Your task to perform on an android device: toggle pop-ups in chrome Image 0: 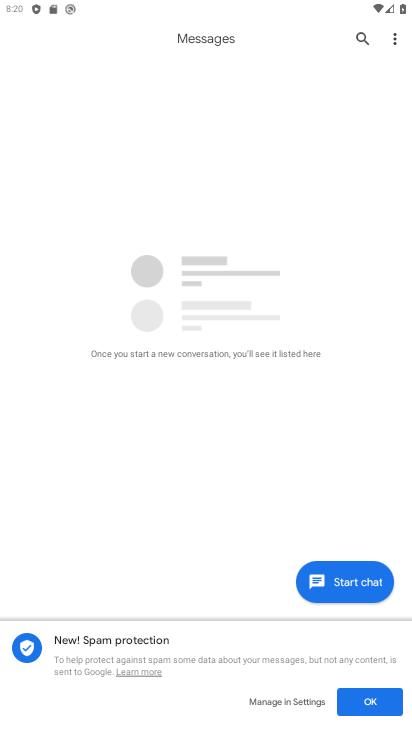
Step 0: press home button
Your task to perform on an android device: toggle pop-ups in chrome Image 1: 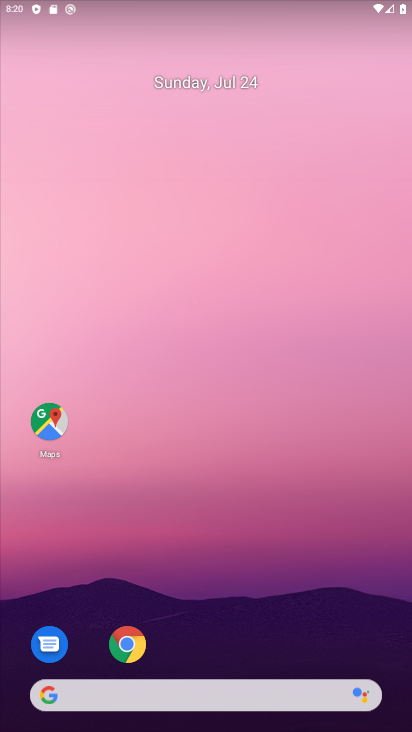
Step 1: click (127, 630)
Your task to perform on an android device: toggle pop-ups in chrome Image 2: 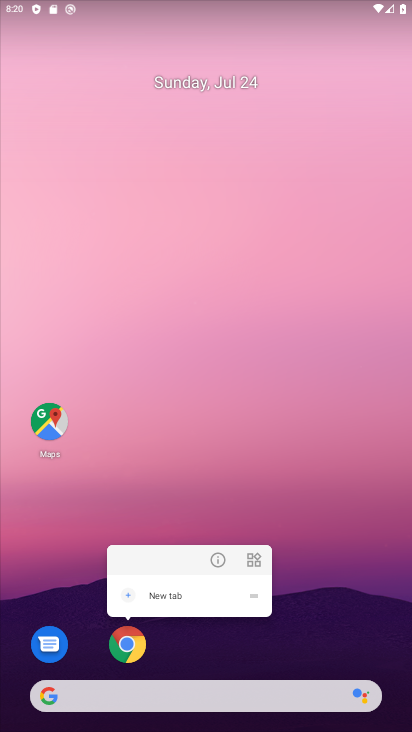
Step 2: click (121, 645)
Your task to perform on an android device: toggle pop-ups in chrome Image 3: 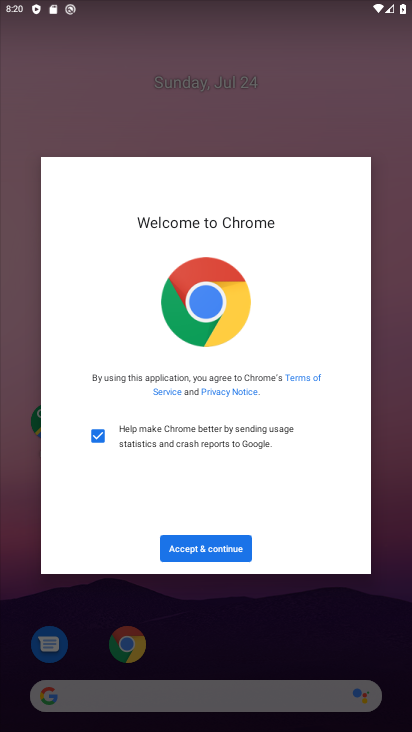
Step 3: click (201, 553)
Your task to perform on an android device: toggle pop-ups in chrome Image 4: 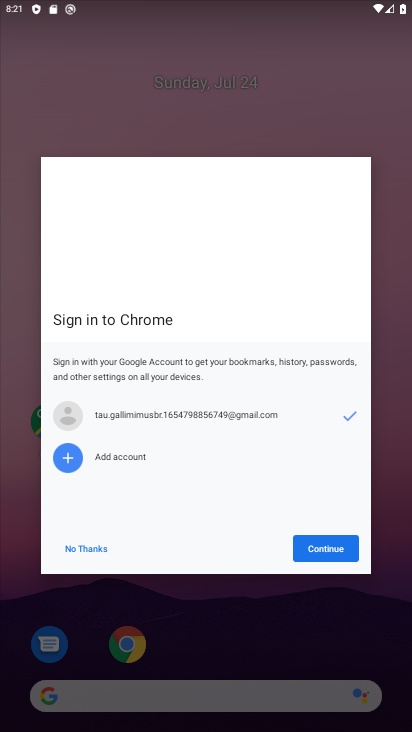
Step 4: click (340, 539)
Your task to perform on an android device: toggle pop-ups in chrome Image 5: 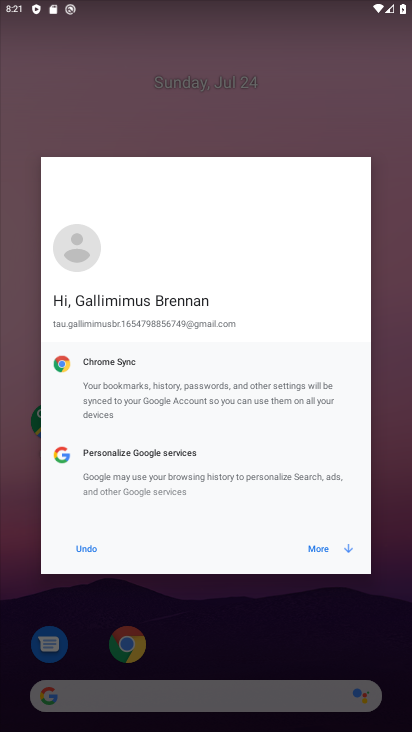
Step 5: click (341, 547)
Your task to perform on an android device: toggle pop-ups in chrome Image 6: 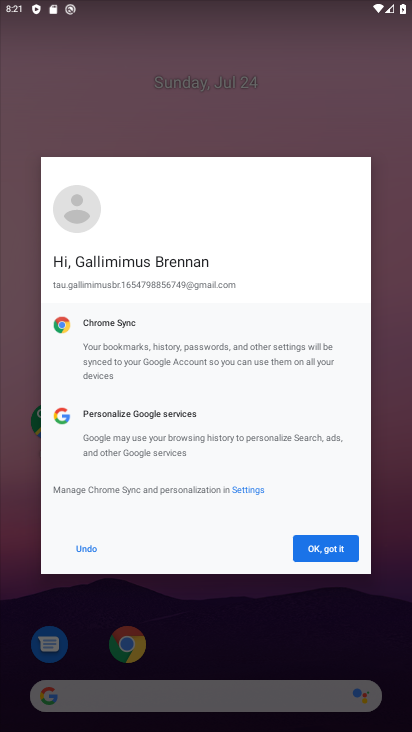
Step 6: click (336, 542)
Your task to perform on an android device: toggle pop-ups in chrome Image 7: 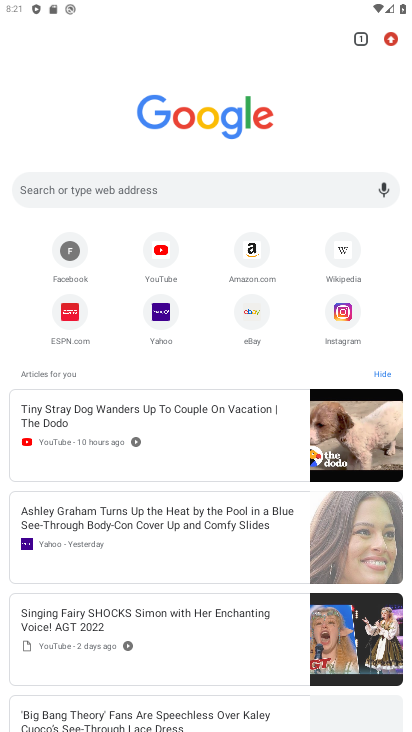
Step 7: drag from (386, 31) to (275, 372)
Your task to perform on an android device: toggle pop-ups in chrome Image 8: 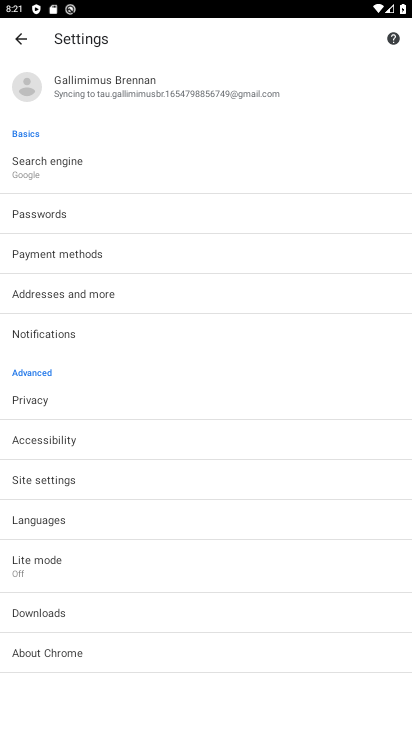
Step 8: click (56, 481)
Your task to perform on an android device: toggle pop-ups in chrome Image 9: 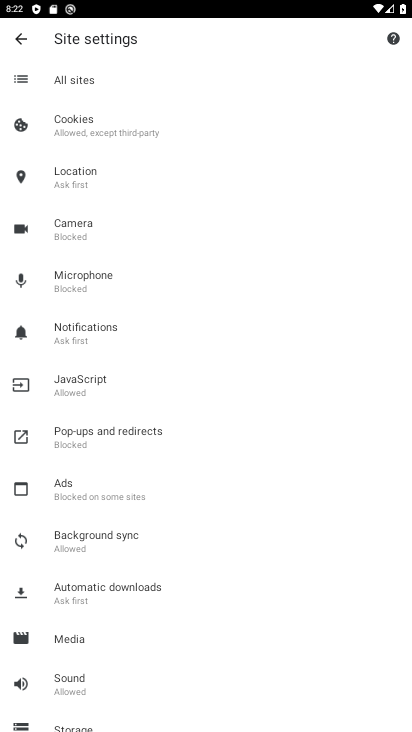
Step 9: click (103, 426)
Your task to perform on an android device: toggle pop-ups in chrome Image 10: 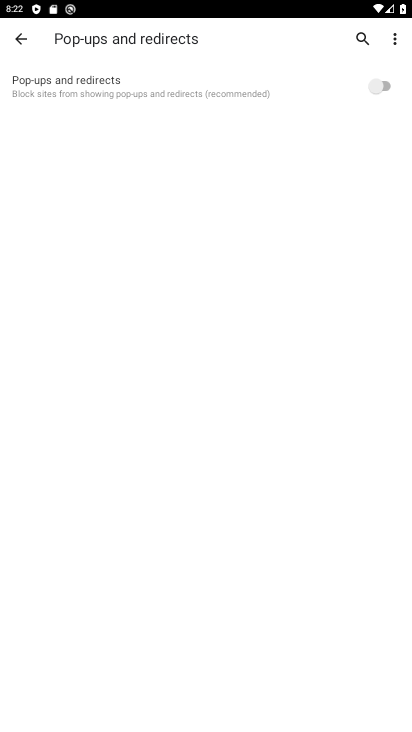
Step 10: click (264, 71)
Your task to perform on an android device: toggle pop-ups in chrome Image 11: 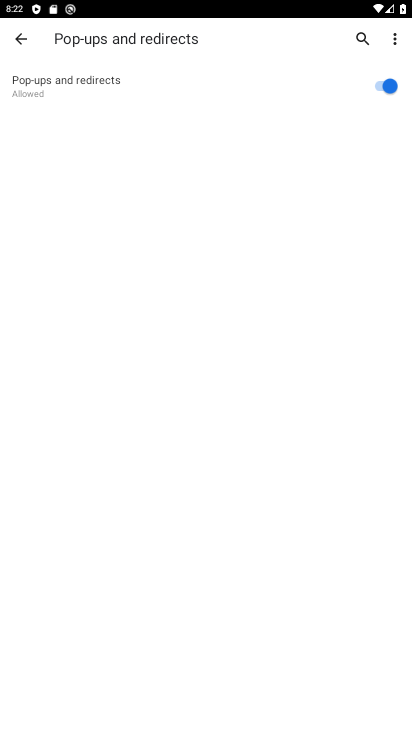
Step 11: task complete